Your task to perform on an android device: turn on sleep mode Image 0: 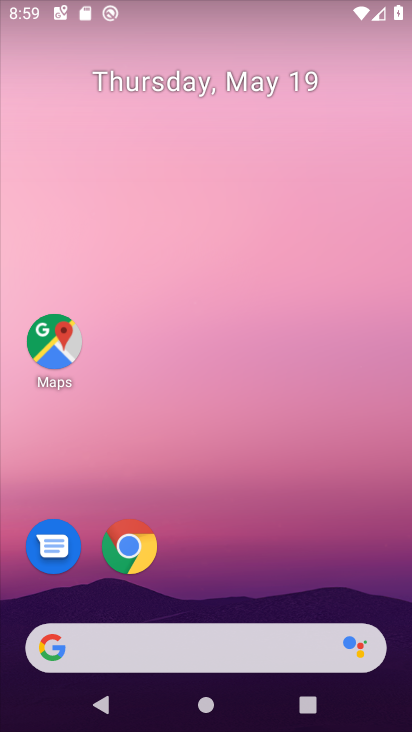
Step 0: drag from (353, 677) to (227, 160)
Your task to perform on an android device: turn on sleep mode Image 1: 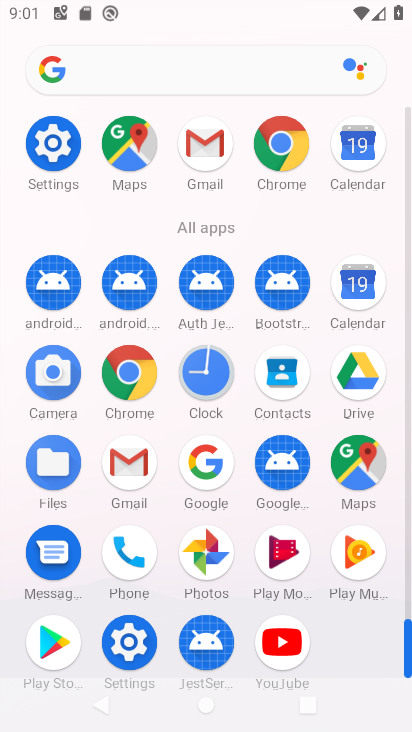
Step 1: click (133, 644)
Your task to perform on an android device: turn on sleep mode Image 2: 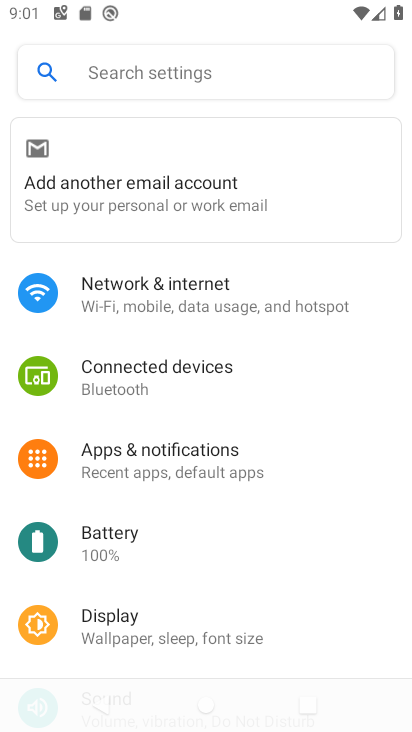
Step 2: click (178, 309)
Your task to perform on an android device: turn on sleep mode Image 3: 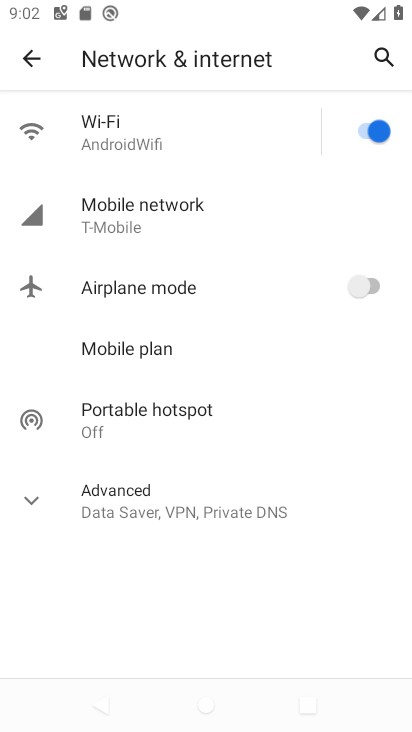
Step 3: click (111, 625)
Your task to perform on an android device: turn on sleep mode Image 4: 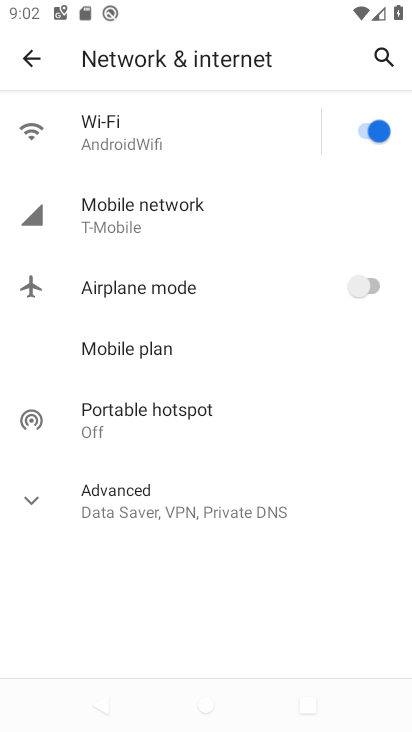
Step 4: click (114, 620)
Your task to perform on an android device: turn on sleep mode Image 5: 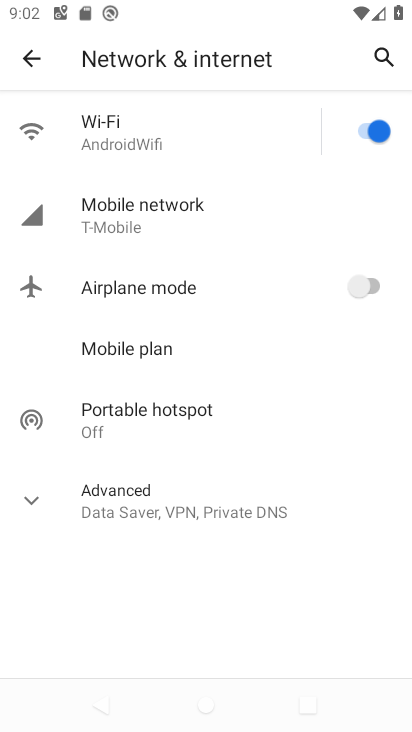
Step 5: click (116, 621)
Your task to perform on an android device: turn on sleep mode Image 6: 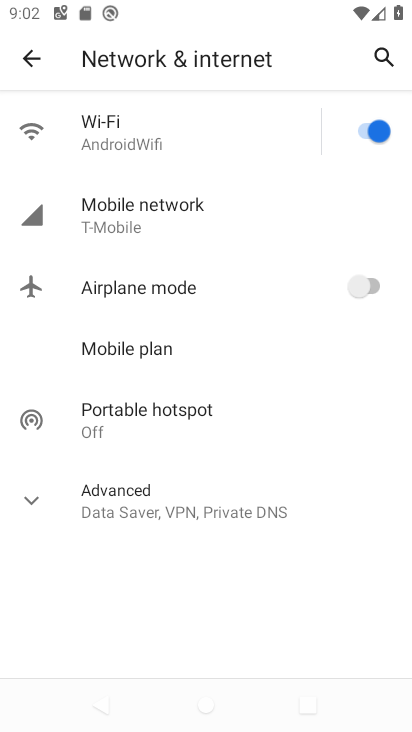
Step 6: click (124, 624)
Your task to perform on an android device: turn on sleep mode Image 7: 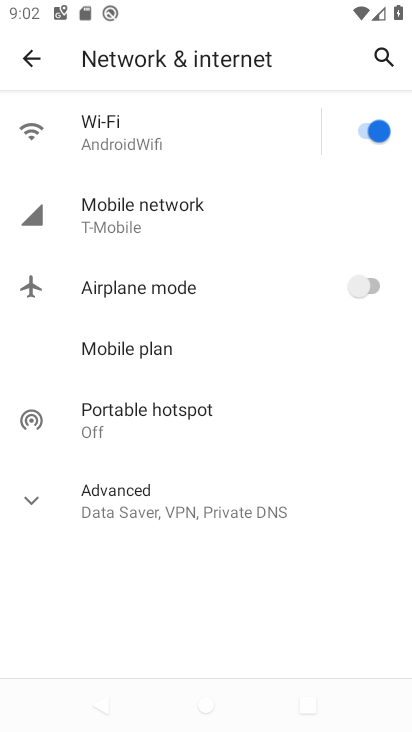
Step 7: drag from (123, 625) to (288, 239)
Your task to perform on an android device: turn on sleep mode Image 8: 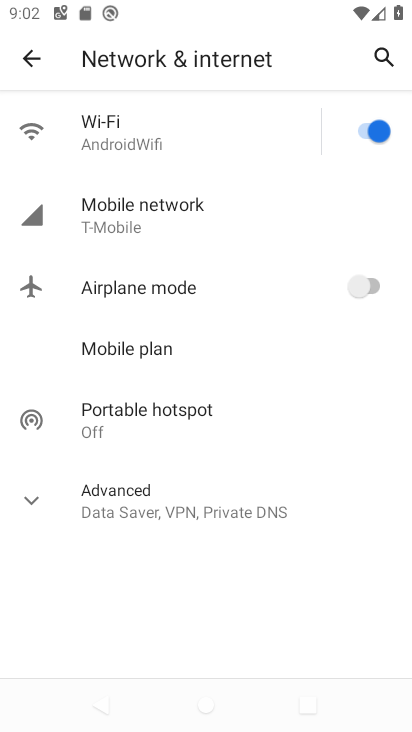
Step 8: click (260, 207)
Your task to perform on an android device: turn on sleep mode Image 9: 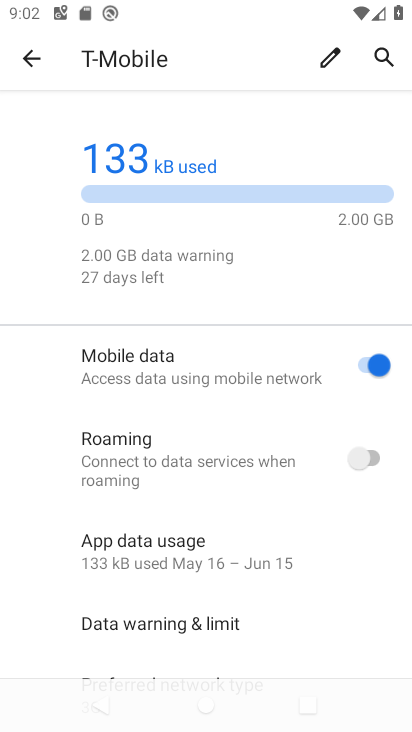
Step 9: click (21, 64)
Your task to perform on an android device: turn on sleep mode Image 10: 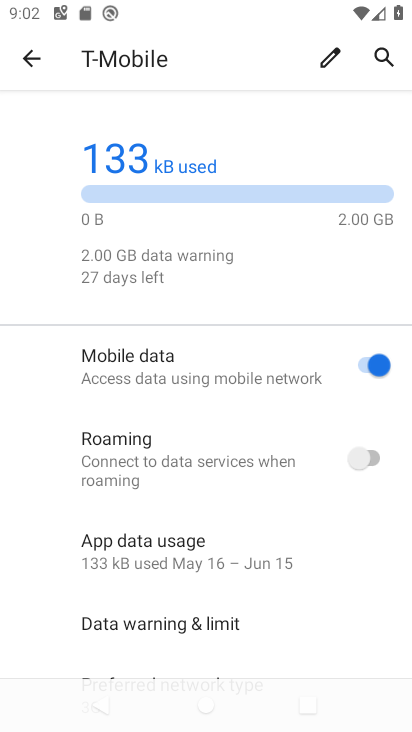
Step 10: click (28, 73)
Your task to perform on an android device: turn on sleep mode Image 11: 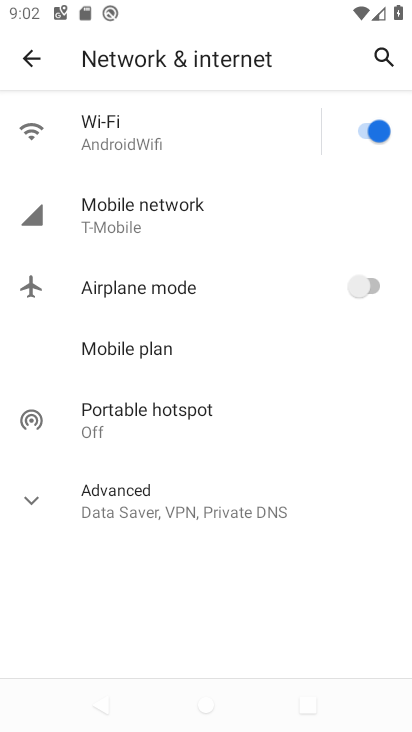
Step 11: click (31, 45)
Your task to perform on an android device: turn on sleep mode Image 12: 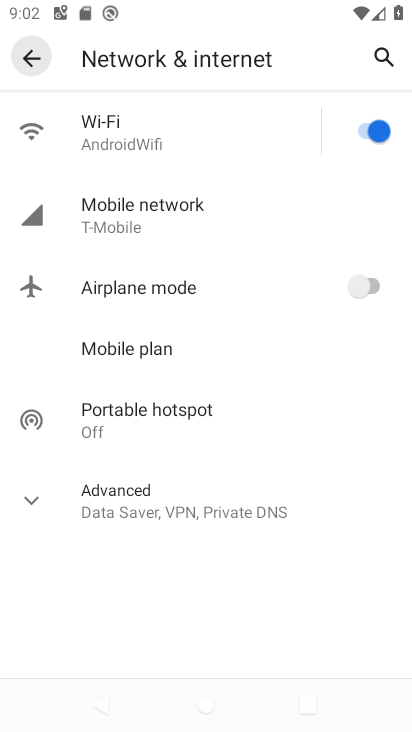
Step 12: click (29, 49)
Your task to perform on an android device: turn on sleep mode Image 13: 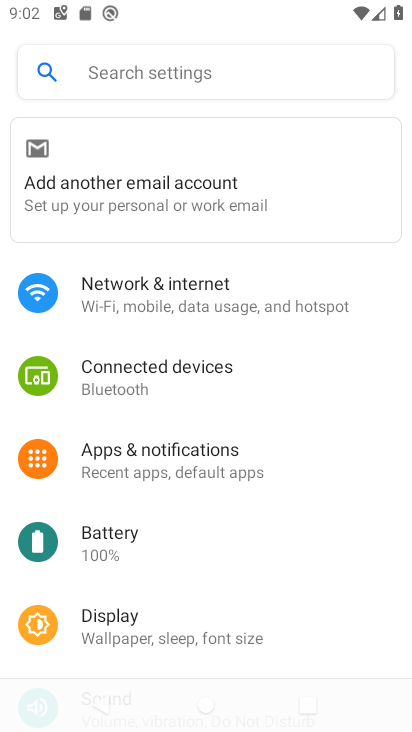
Step 13: click (27, 67)
Your task to perform on an android device: turn on sleep mode Image 14: 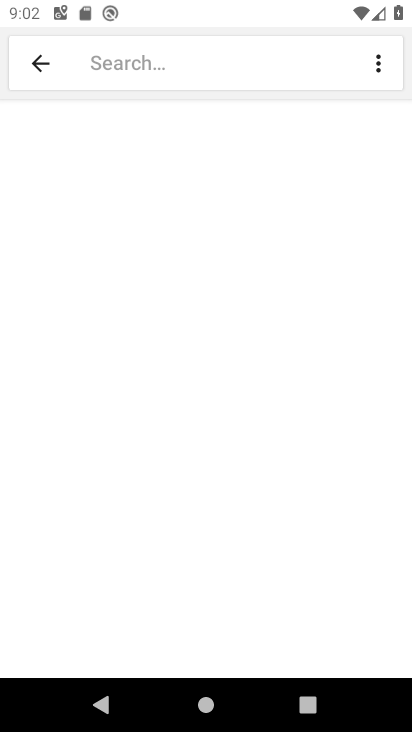
Step 14: click (34, 57)
Your task to perform on an android device: turn on sleep mode Image 15: 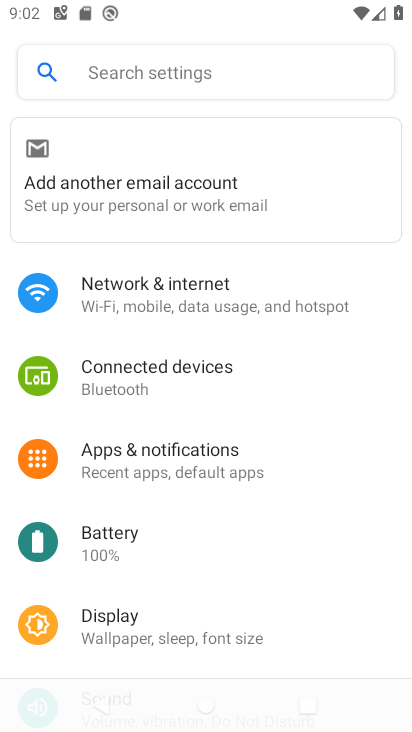
Step 15: task complete